Your task to perform on an android device: add a contact Image 0: 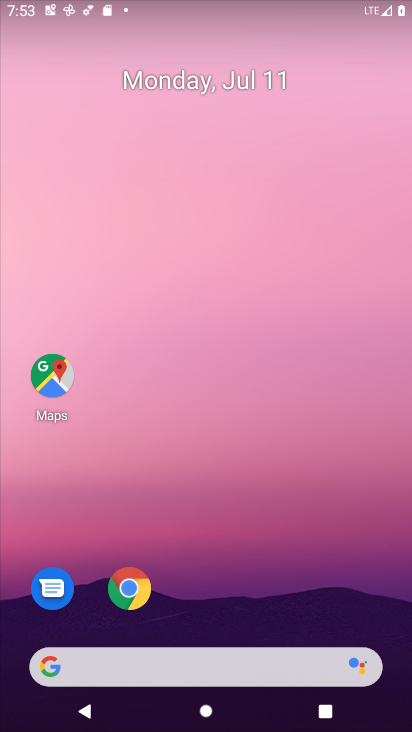
Step 0: drag from (392, 597) to (240, 29)
Your task to perform on an android device: add a contact Image 1: 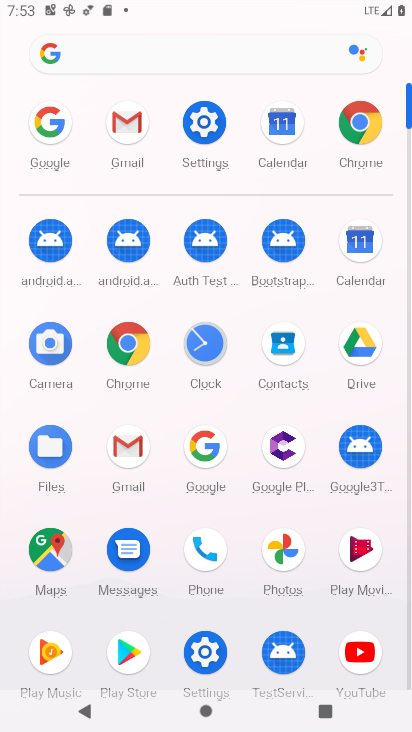
Step 1: click (291, 370)
Your task to perform on an android device: add a contact Image 2: 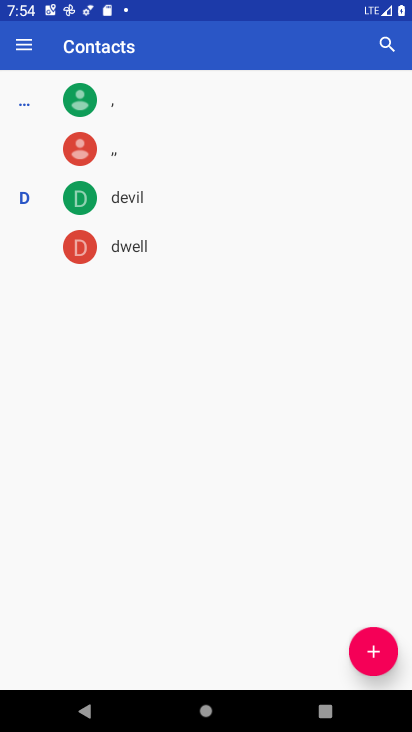
Step 2: click (373, 648)
Your task to perform on an android device: add a contact Image 3: 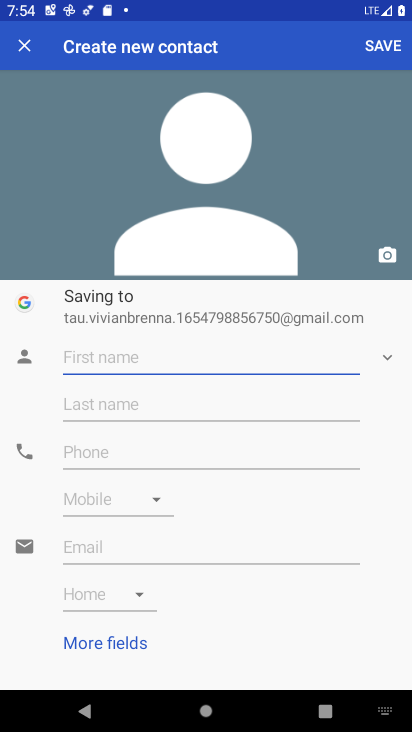
Step 3: type "awara"
Your task to perform on an android device: add a contact Image 4: 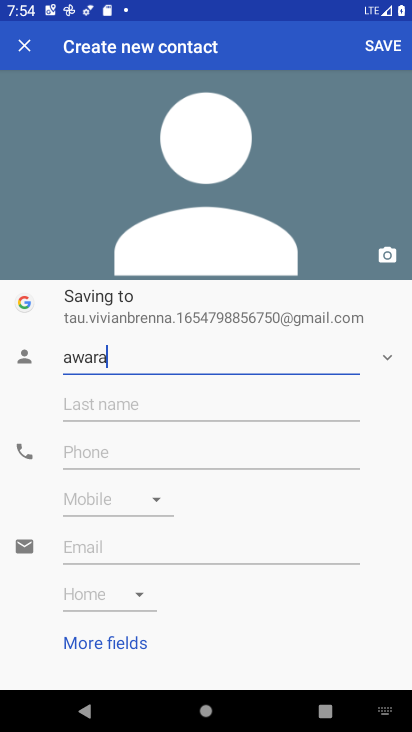
Step 4: click (366, 44)
Your task to perform on an android device: add a contact Image 5: 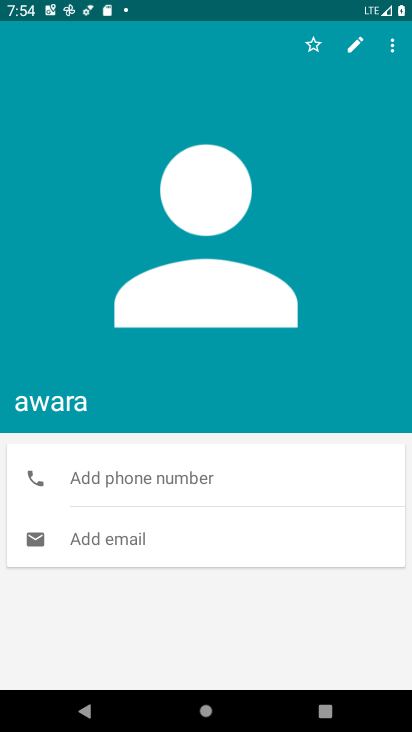
Step 5: task complete